Your task to perform on an android device: turn off airplane mode Image 0: 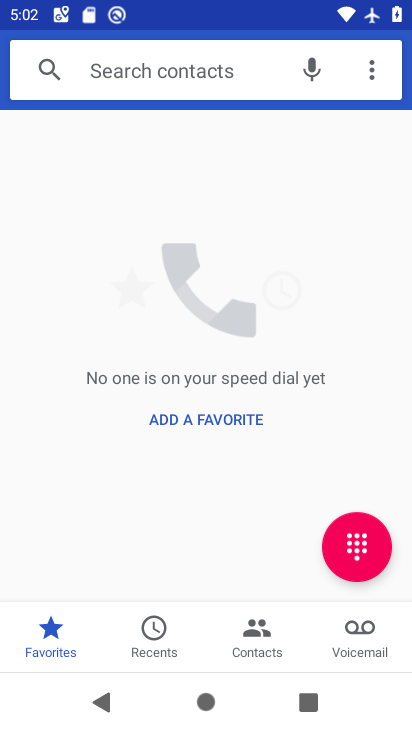
Step 0: press home button
Your task to perform on an android device: turn off airplane mode Image 1: 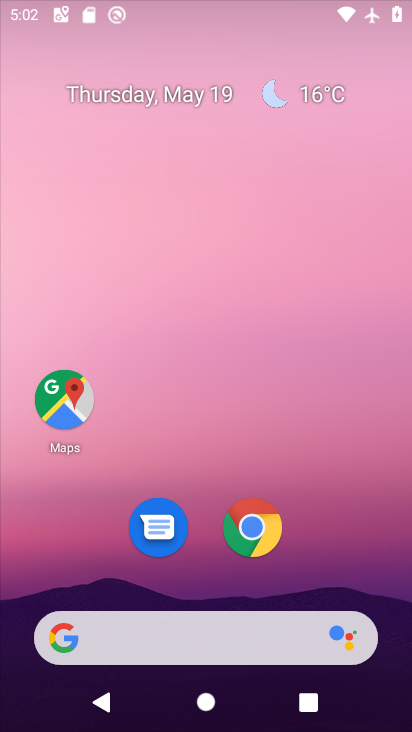
Step 1: drag from (325, 468) to (224, 100)
Your task to perform on an android device: turn off airplane mode Image 2: 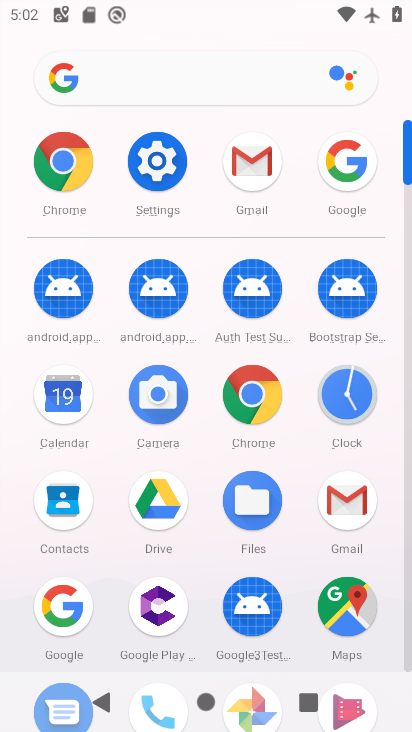
Step 2: click (152, 169)
Your task to perform on an android device: turn off airplane mode Image 3: 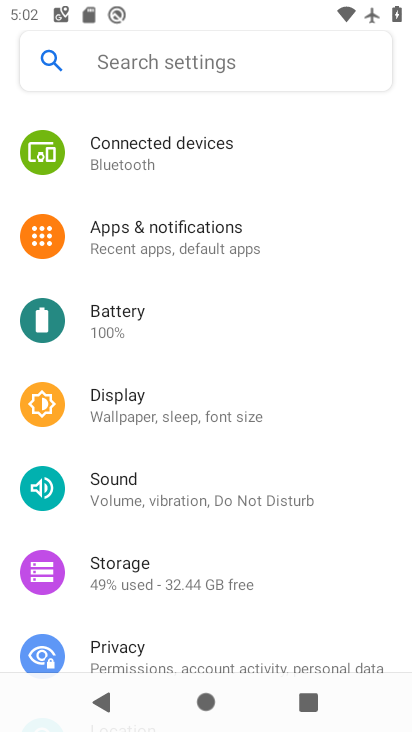
Step 3: drag from (237, 175) to (295, 686)
Your task to perform on an android device: turn off airplane mode Image 4: 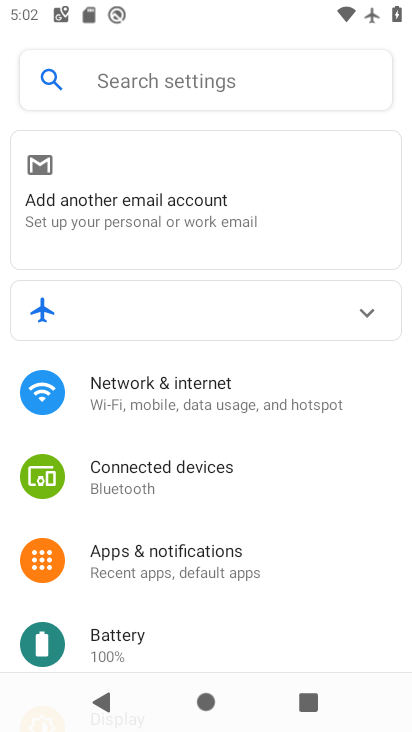
Step 4: click (209, 410)
Your task to perform on an android device: turn off airplane mode Image 5: 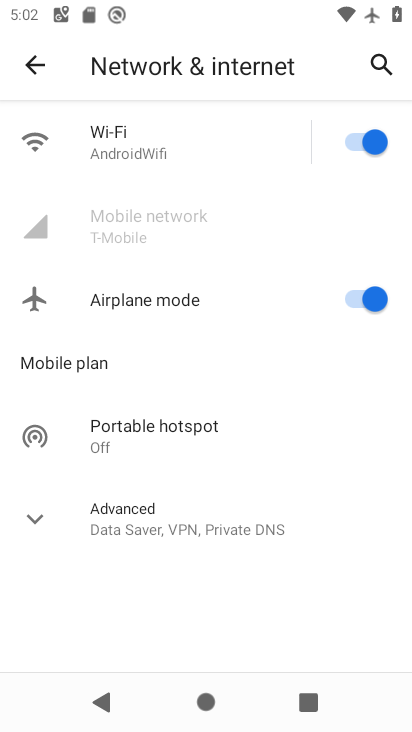
Step 5: click (365, 293)
Your task to perform on an android device: turn off airplane mode Image 6: 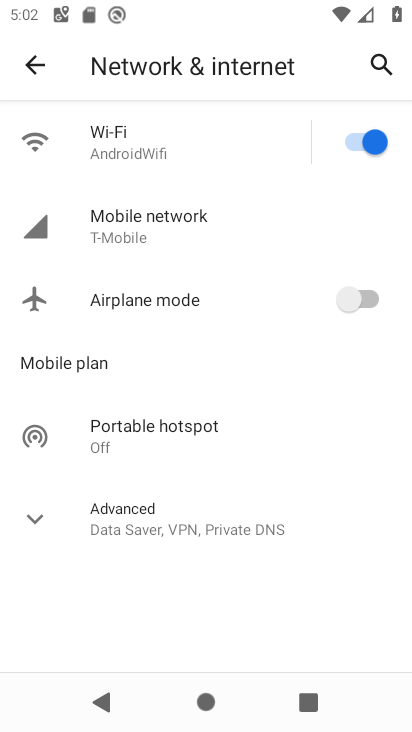
Step 6: task complete